Your task to perform on an android device: Go to Yahoo.com Image 0: 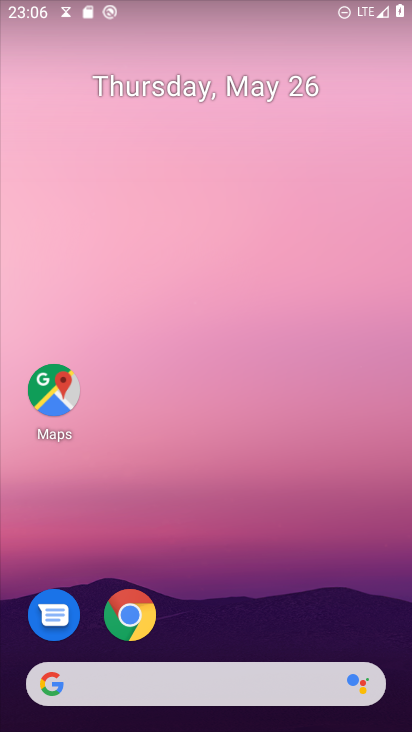
Step 0: click (127, 612)
Your task to perform on an android device: Go to Yahoo.com Image 1: 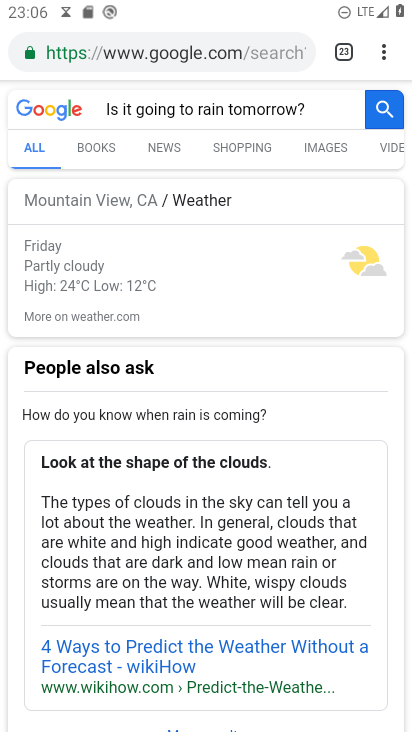
Step 1: click (388, 48)
Your task to perform on an android device: Go to Yahoo.com Image 2: 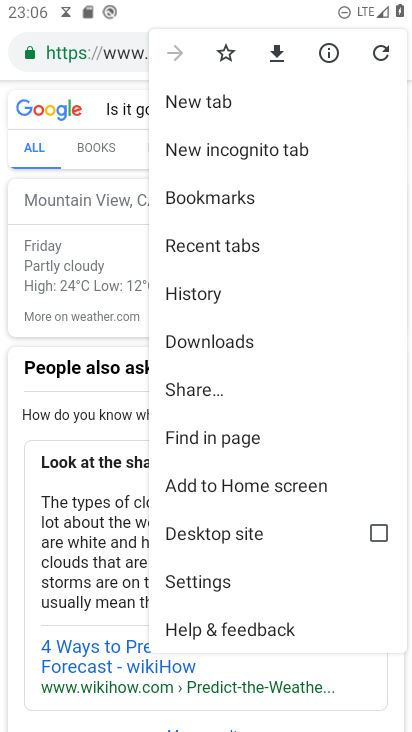
Step 2: click (202, 102)
Your task to perform on an android device: Go to Yahoo.com Image 3: 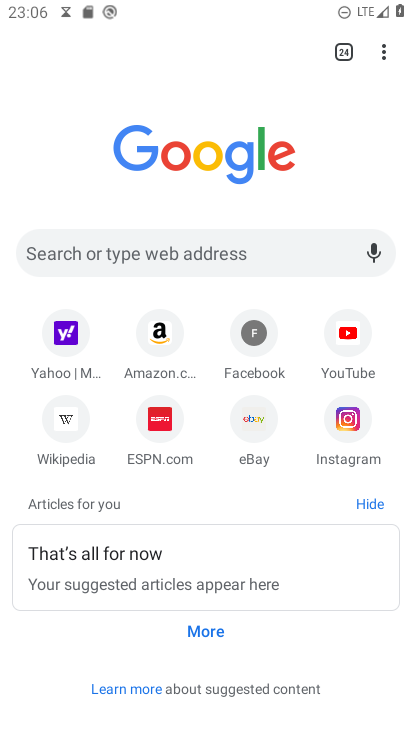
Step 3: click (64, 320)
Your task to perform on an android device: Go to Yahoo.com Image 4: 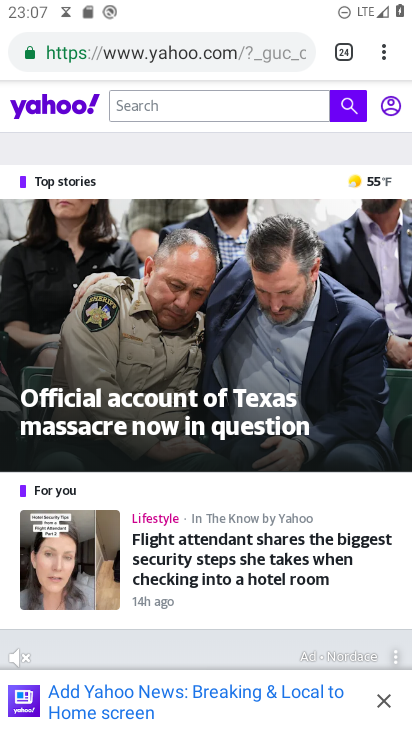
Step 4: task complete